Your task to perform on an android device: Check the news Image 0: 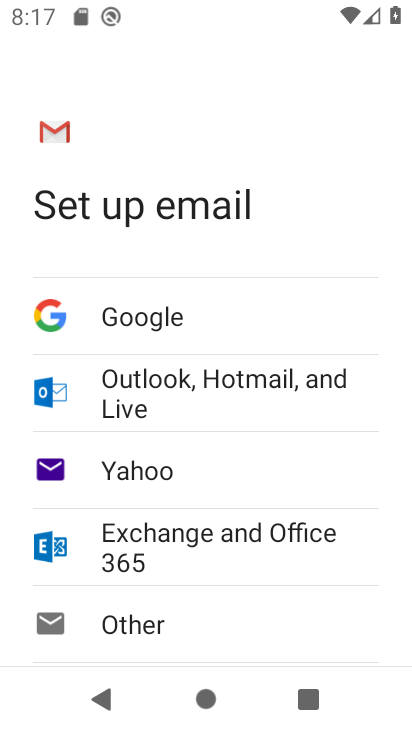
Step 0: press home button
Your task to perform on an android device: Check the news Image 1: 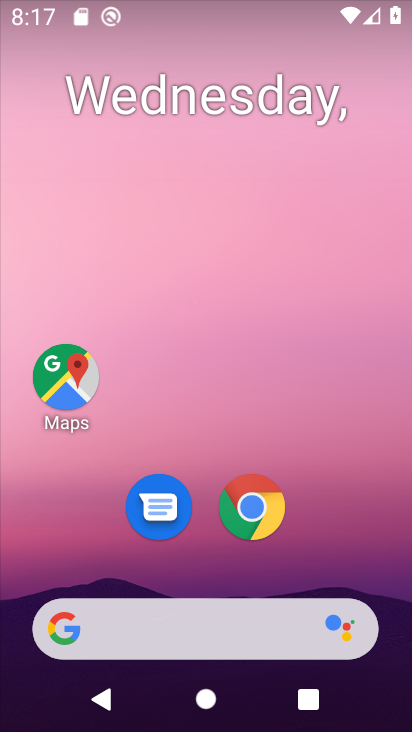
Step 1: click (152, 645)
Your task to perform on an android device: Check the news Image 2: 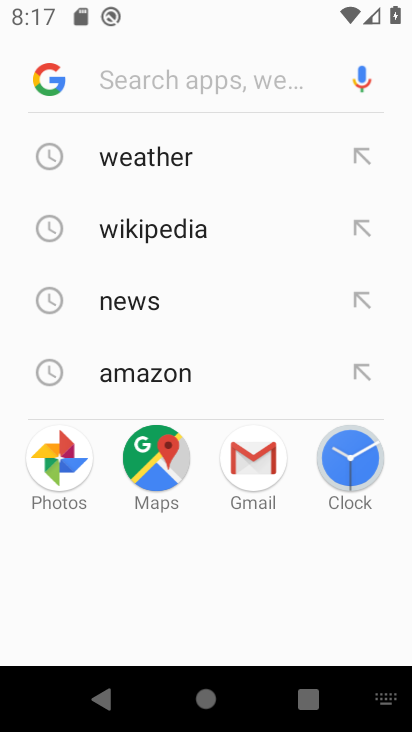
Step 2: type "news"
Your task to perform on an android device: Check the news Image 3: 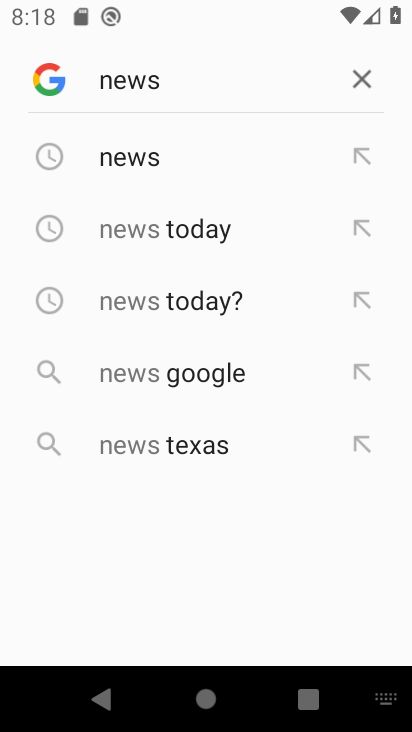
Step 3: click (144, 182)
Your task to perform on an android device: Check the news Image 4: 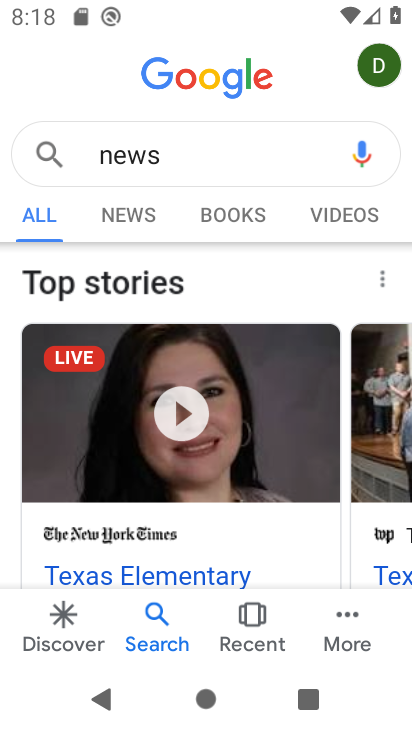
Step 4: click (131, 205)
Your task to perform on an android device: Check the news Image 5: 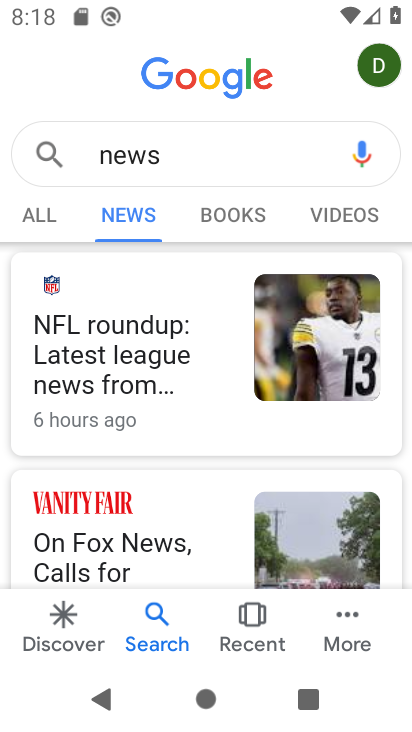
Step 5: task complete